Your task to perform on an android device: turn pop-ups on in chrome Image 0: 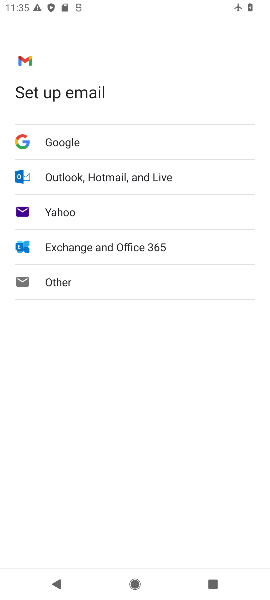
Step 0: press home button
Your task to perform on an android device: turn pop-ups on in chrome Image 1: 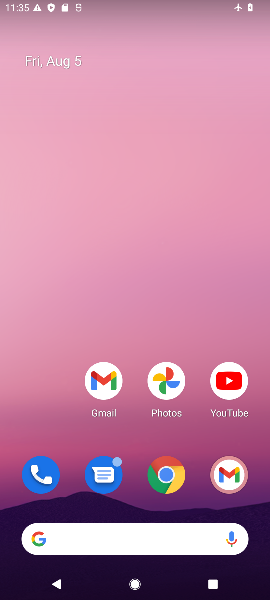
Step 1: click (178, 491)
Your task to perform on an android device: turn pop-ups on in chrome Image 2: 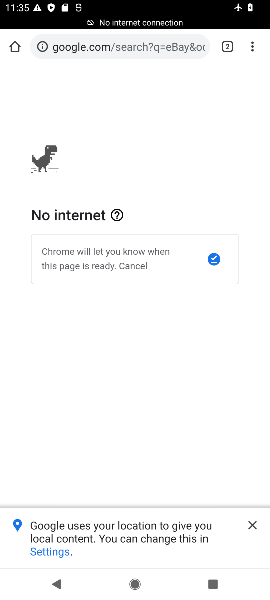
Step 2: click (256, 50)
Your task to perform on an android device: turn pop-ups on in chrome Image 3: 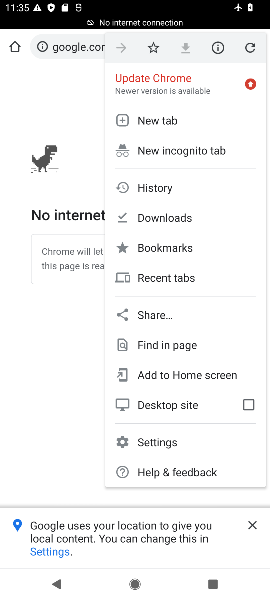
Step 3: click (252, 48)
Your task to perform on an android device: turn pop-ups on in chrome Image 4: 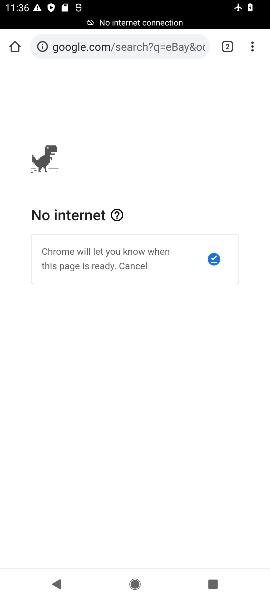
Step 4: click (144, 442)
Your task to perform on an android device: turn pop-ups on in chrome Image 5: 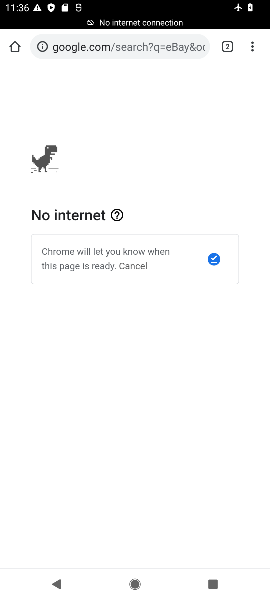
Step 5: click (254, 46)
Your task to perform on an android device: turn pop-ups on in chrome Image 6: 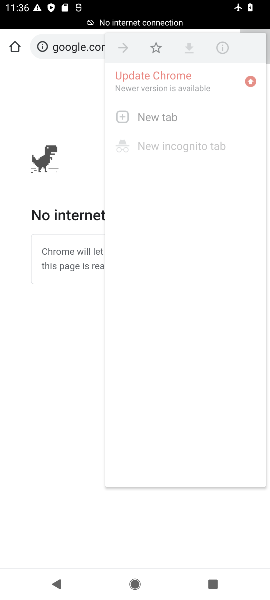
Step 6: click (253, 48)
Your task to perform on an android device: turn pop-ups on in chrome Image 7: 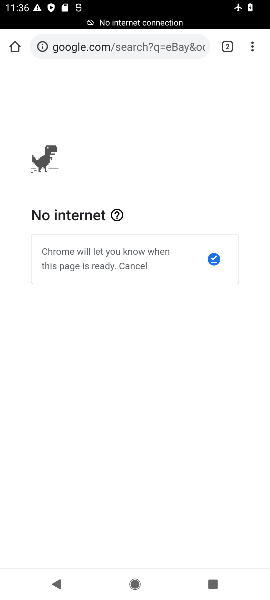
Step 7: click (254, 43)
Your task to perform on an android device: turn pop-ups on in chrome Image 8: 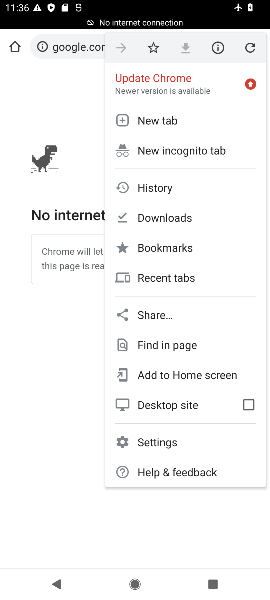
Step 8: click (150, 445)
Your task to perform on an android device: turn pop-ups on in chrome Image 9: 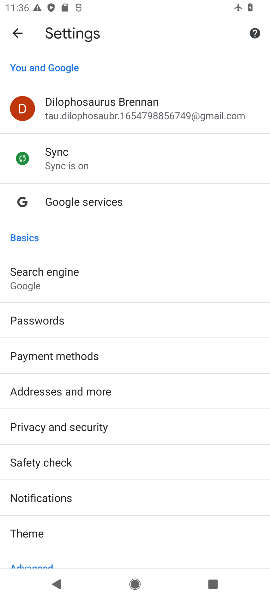
Step 9: drag from (82, 484) to (110, 204)
Your task to perform on an android device: turn pop-ups on in chrome Image 10: 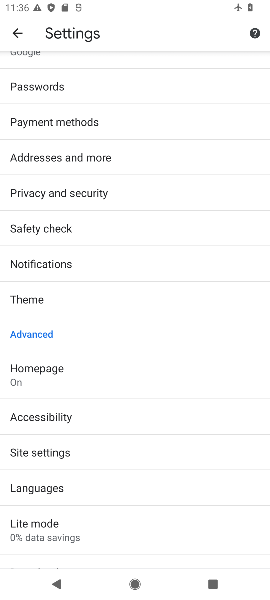
Step 10: click (56, 453)
Your task to perform on an android device: turn pop-ups on in chrome Image 11: 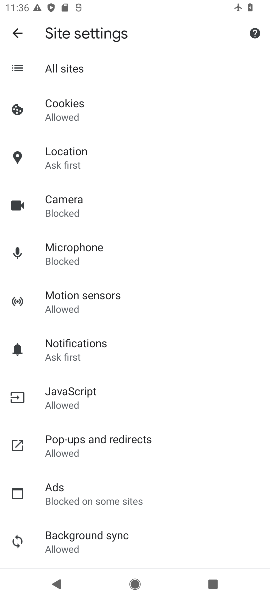
Step 11: click (68, 442)
Your task to perform on an android device: turn pop-ups on in chrome Image 12: 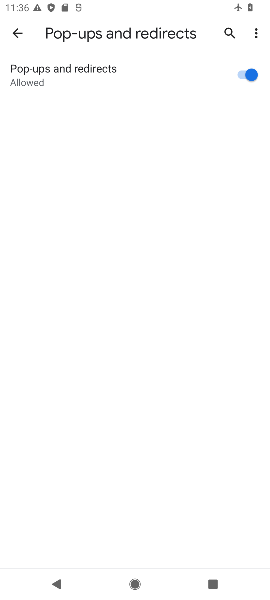
Step 12: task complete